Your task to perform on an android device: Open network settings Image 0: 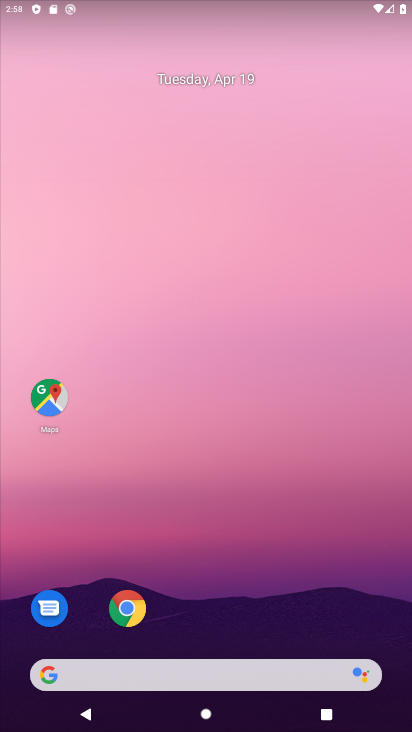
Step 0: drag from (254, 717) to (254, 223)
Your task to perform on an android device: Open network settings Image 1: 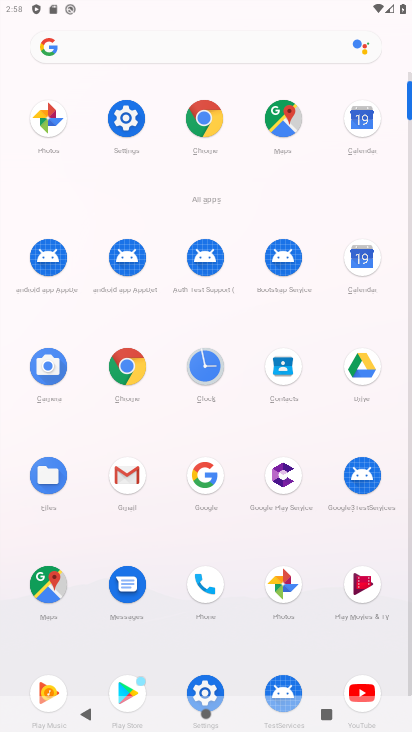
Step 1: click (206, 691)
Your task to perform on an android device: Open network settings Image 2: 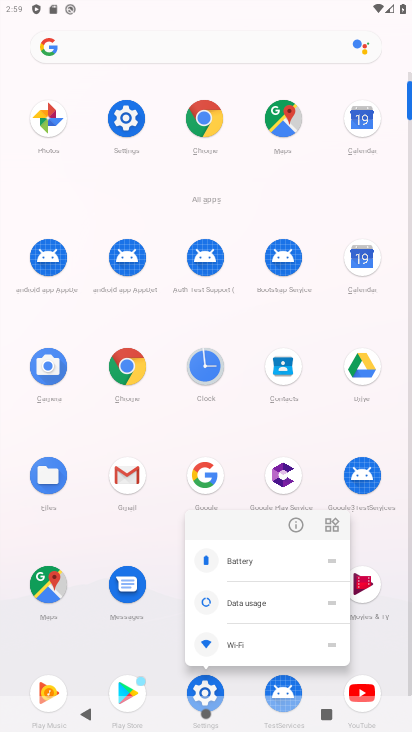
Step 2: click (212, 686)
Your task to perform on an android device: Open network settings Image 3: 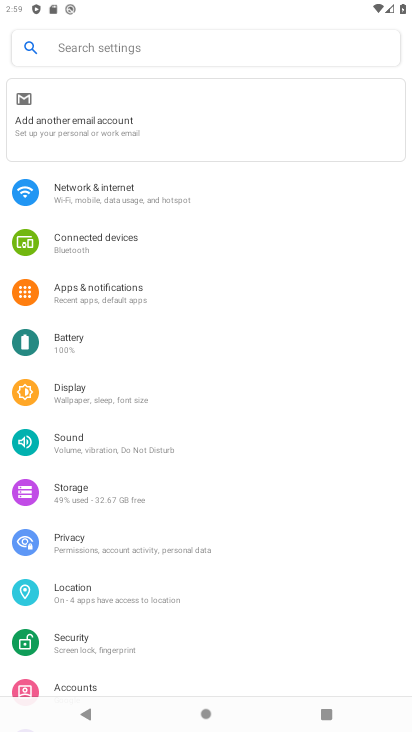
Step 3: click (117, 193)
Your task to perform on an android device: Open network settings Image 4: 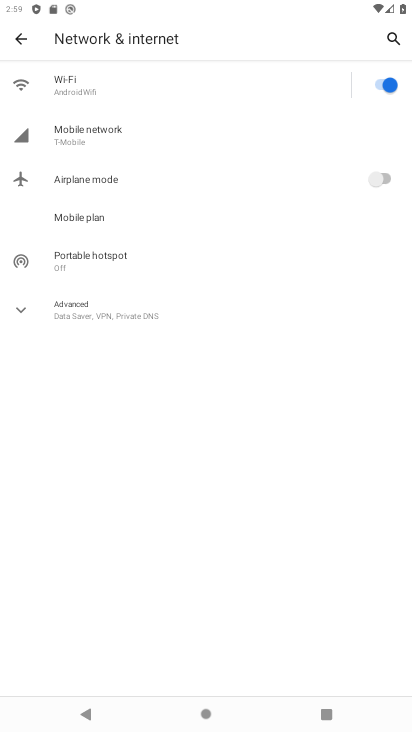
Step 4: task complete